Your task to perform on an android device: set the timer Image 0: 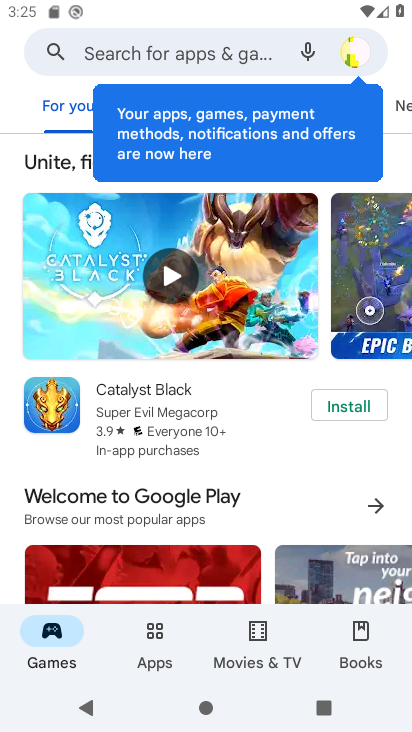
Step 0: press back button
Your task to perform on an android device: set the timer Image 1: 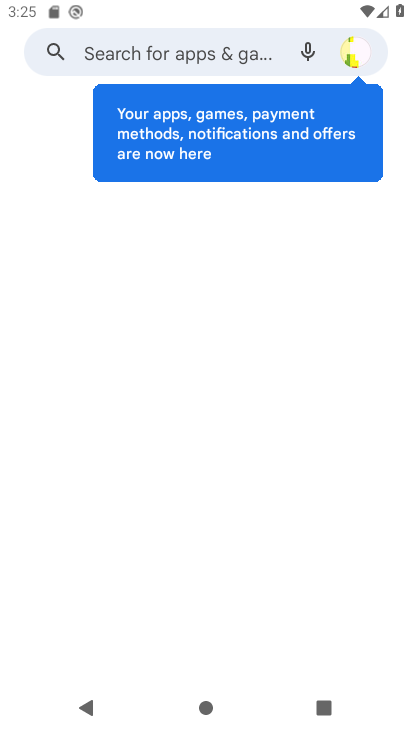
Step 1: press back button
Your task to perform on an android device: set the timer Image 2: 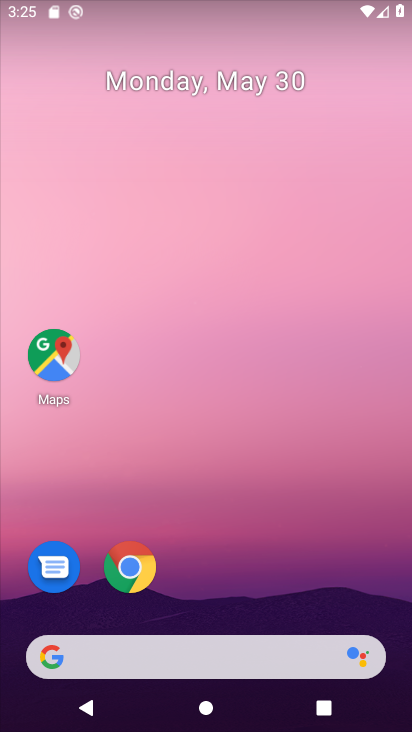
Step 2: press home button
Your task to perform on an android device: set the timer Image 3: 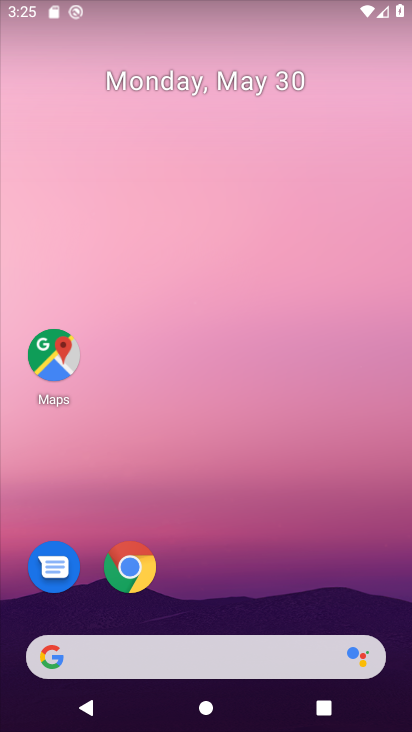
Step 3: drag from (274, 574) to (169, 69)
Your task to perform on an android device: set the timer Image 4: 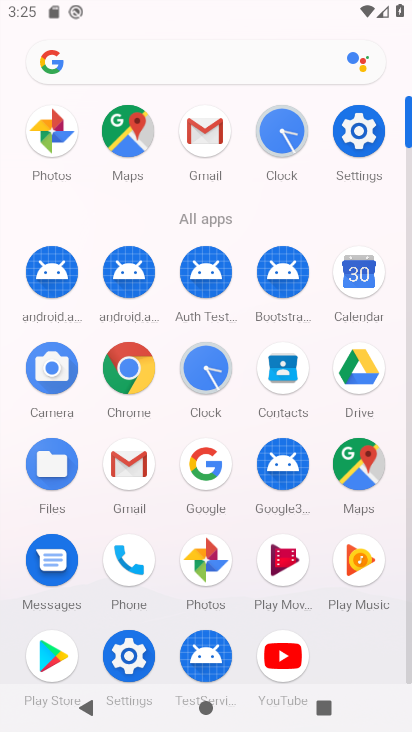
Step 4: drag from (268, 544) to (167, 10)
Your task to perform on an android device: set the timer Image 5: 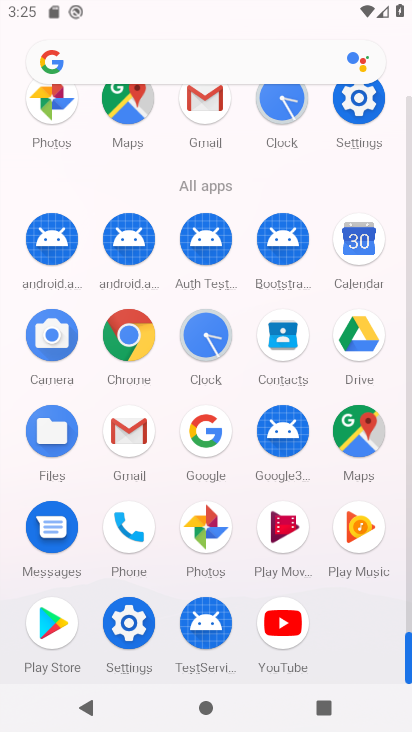
Step 5: click (206, 329)
Your task to perform on an android device: set the timer Image 6: 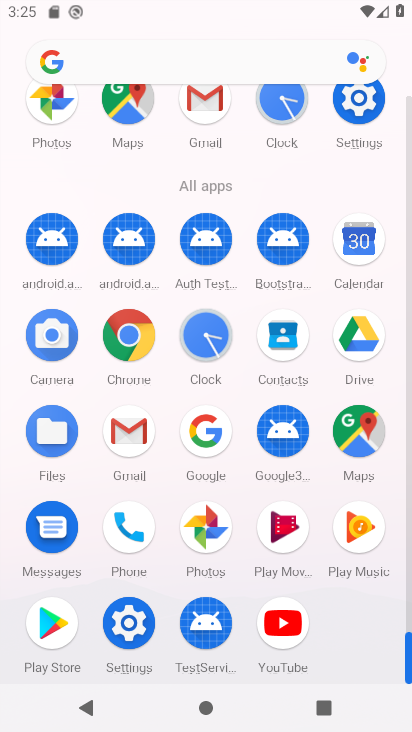
Step 6: click (205, 330)
Your task to perform on an android device: set the timer Image 7: 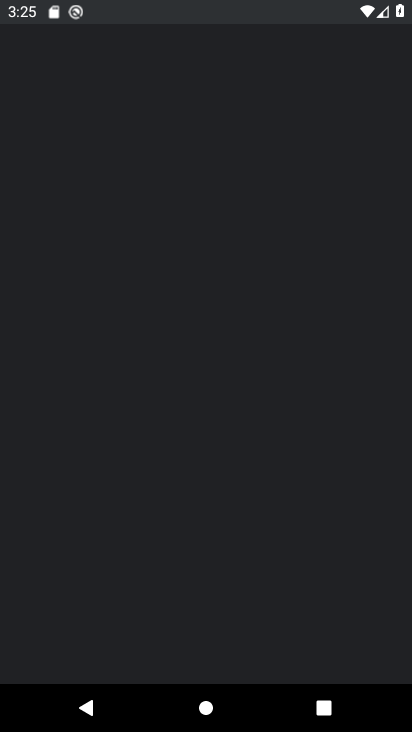
Step 7: click (193, 357)
Your task to perform on an android device: set the timer Image 8: 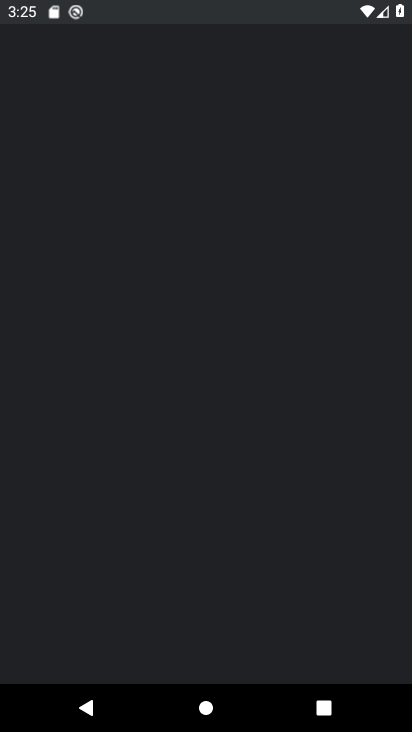
Step 8: click (200, 340)
Your task to perform on an android device: set the timer Image 9: 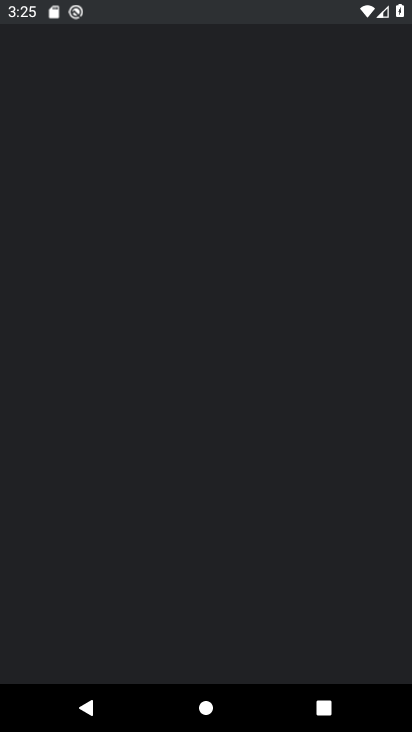
Step 9: click (200, 340)
Your task to perform on an android device: set the timer Image 10: 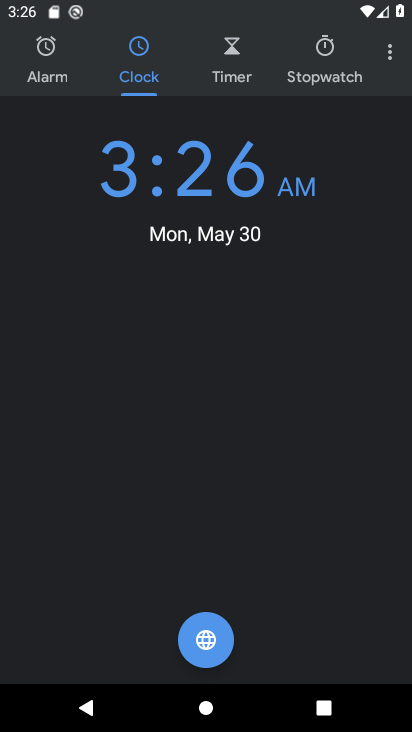
Step 10: click (237, 69)
Your task to perform on an android device: set the timer Image 11: 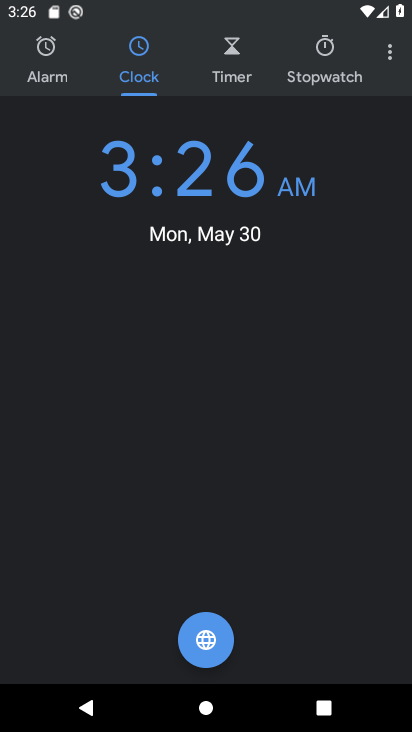
Step 11: click (238, 69)
Your task to perform on an android device: set the timer Image 12: 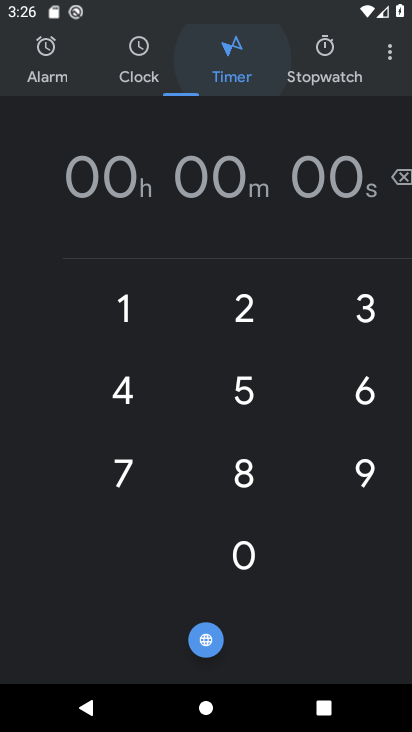
Step 12: click (237, 69)
Your task to perform on an android device: set the timer Image 13: 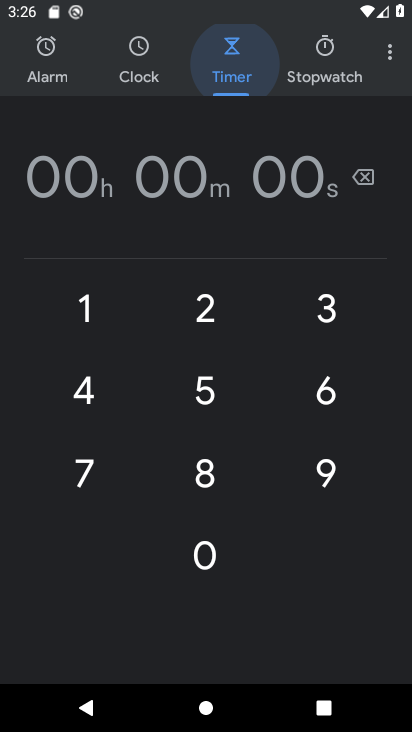
Step 13: click (235, 71)
Your task to perform on an android device: set the timer Image 14: 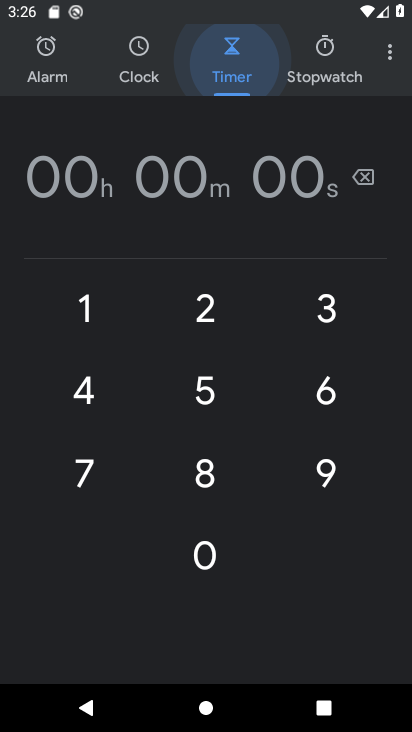
Step 14: click (235, 75)
Your task to perform on an android device: set the timer Image 15: 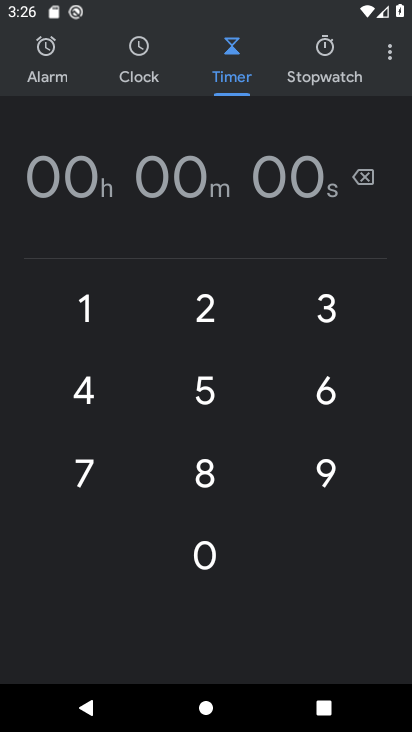
Step 15: click (206, 463)
Your task to perform on an android device: set the timer Image 16: 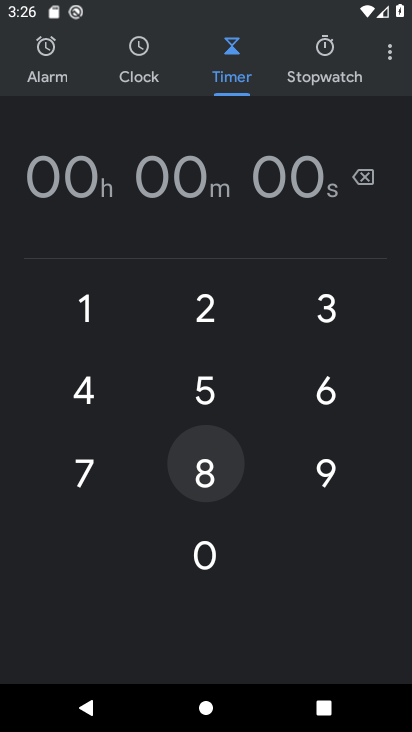
Step 16: click (205, 462)
Your task to perform on an android device: set the timer Image 17: 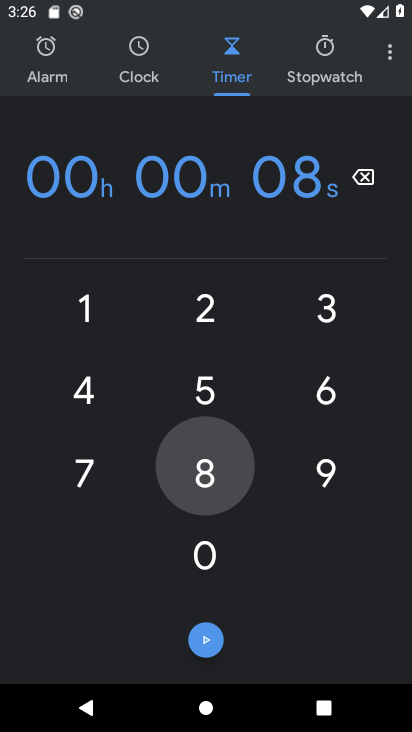
Step 17: click (211, 470)
Your task to perform on an android device: set the timer Image 18: 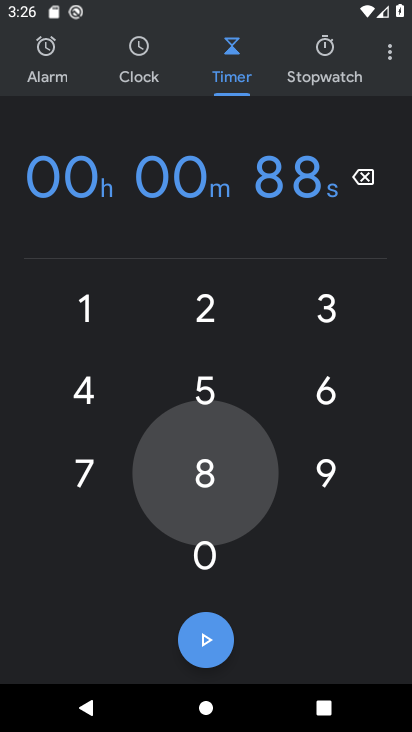
Step 18: click (210, 471)
Your task to perform on an android device: set the timer Image 19: 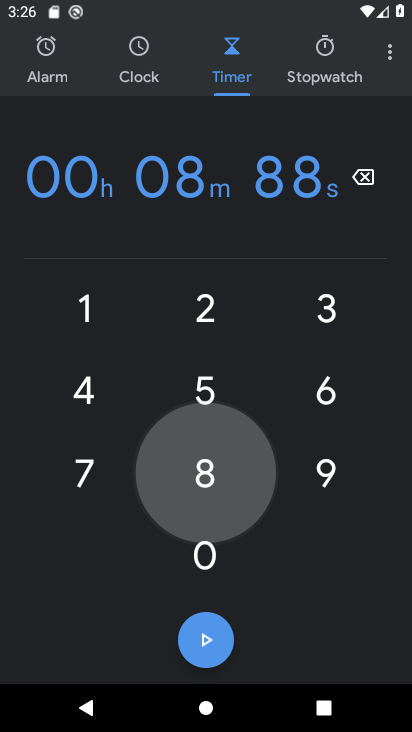
Step 19: click (208, 473)
Your task to perform on an android device: set the timer Image 20: 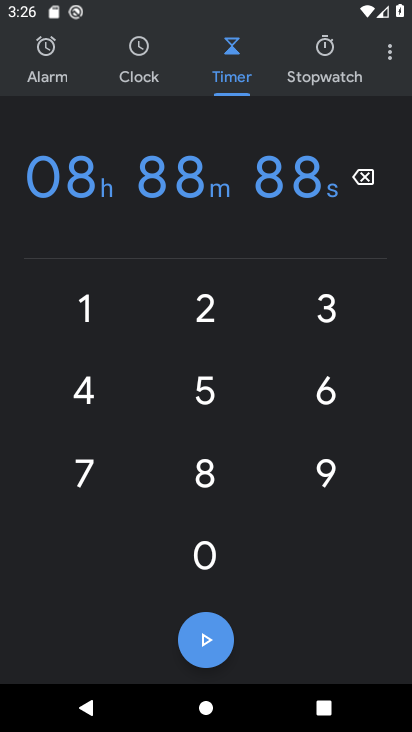
Step 20: click (209, 632)
Your task to perform on an android device: set the timer Image 21: 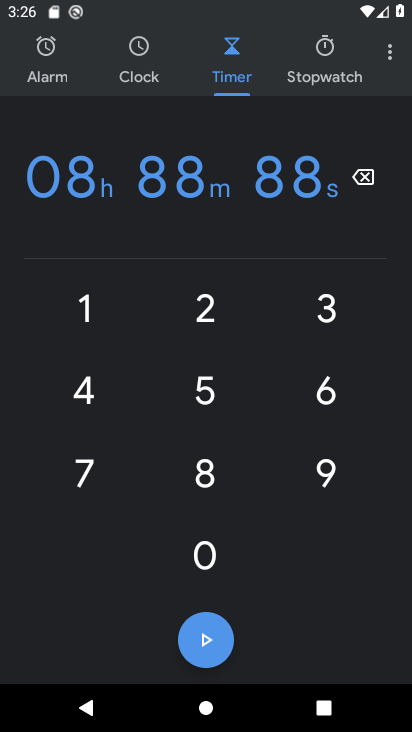
Step 21: click (208, 647)
Your task to perform on an android device: set the timer Image 22: 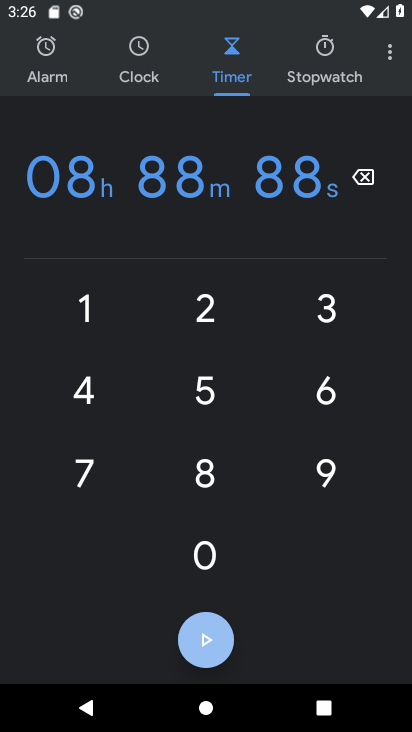
Step 22: click (207, 646)
Your task to perform on an android device: set the timer Image 23: 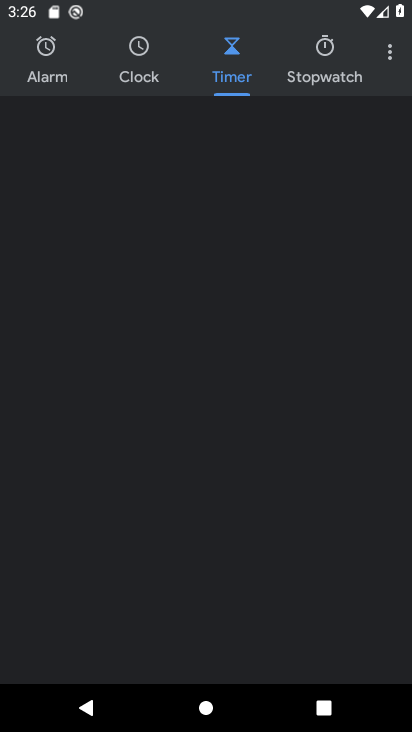
Step 23: click (207, 646)
Your task to perform on an android device: set the timer Image 24: 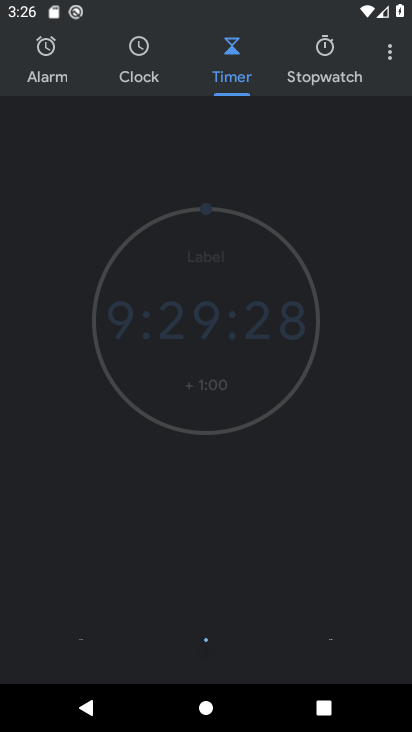
Step 24: click (209, 640)
Your task to perform on an android device: set the timer Image 25: 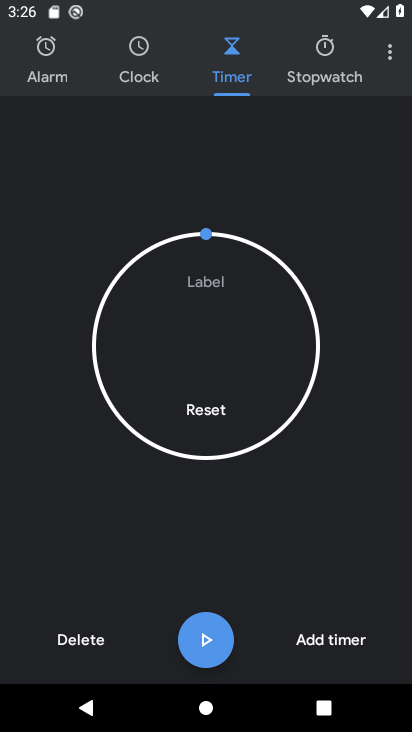
Step 25: click (208, 638)
Your task to perform on an android device: set the timer Image 26: 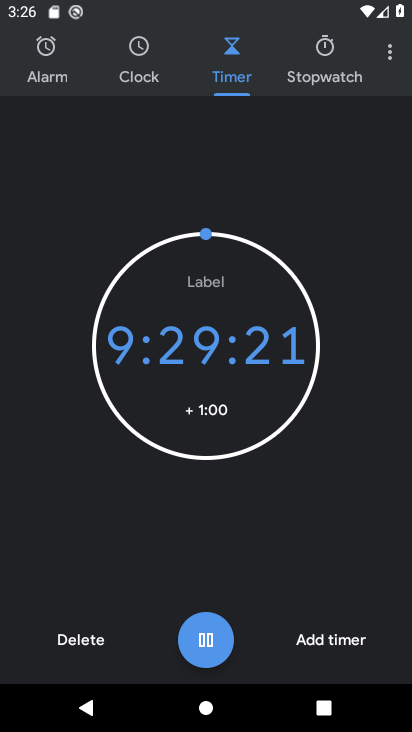
Step 26: click (212, 638)
Your task to perform on an android device: set the timer Image 27: 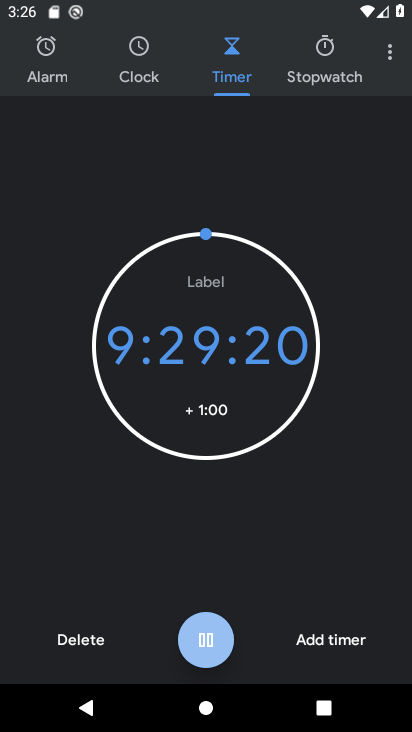
Step 27: click (209, 640)
Your task to perform on an android device: set the timer Image 28: 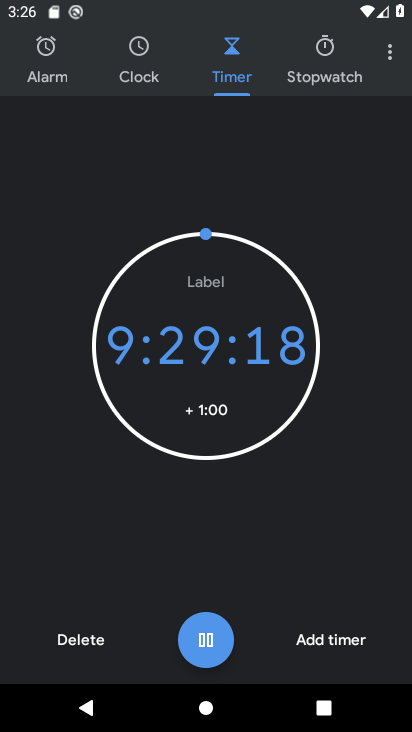
Step 28: click (207, 638)
Your task to perform on an android device: set the timer Image 29: 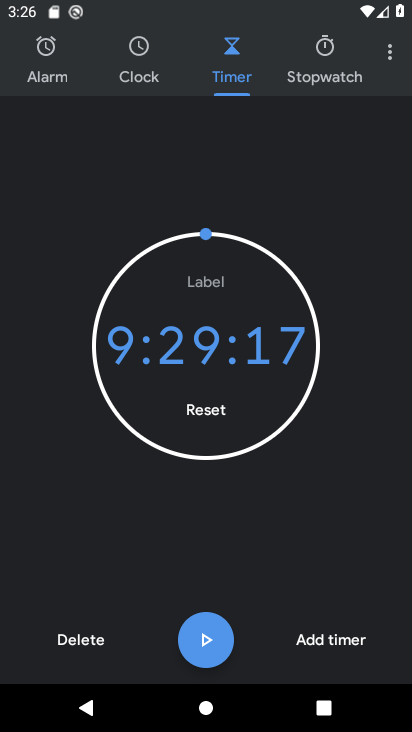
Step 29: task complete